Your task to perform on an android device: Search for vegetarian restaurants on Maps Image 0: 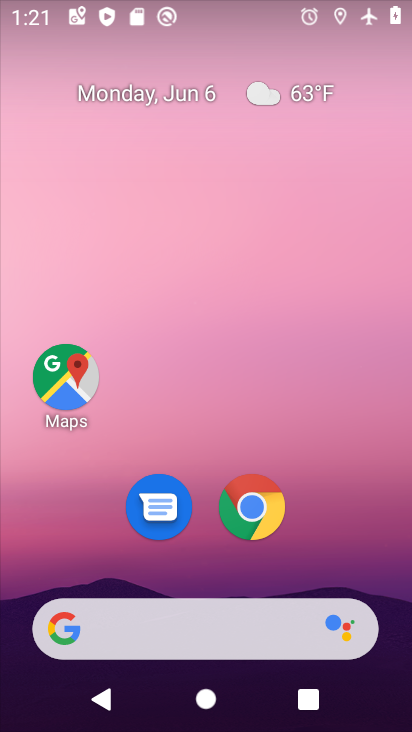
Step 0: click (58, 368)
Your task to perform on an android device: Search for vegetarian restaurants on Maps Image 1: 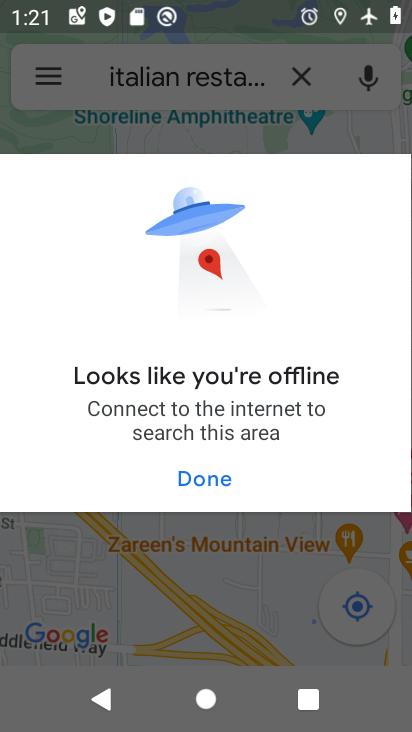
Step 1: task complete